Your task to perform on an android device: create a new album in the google photos Image 0: 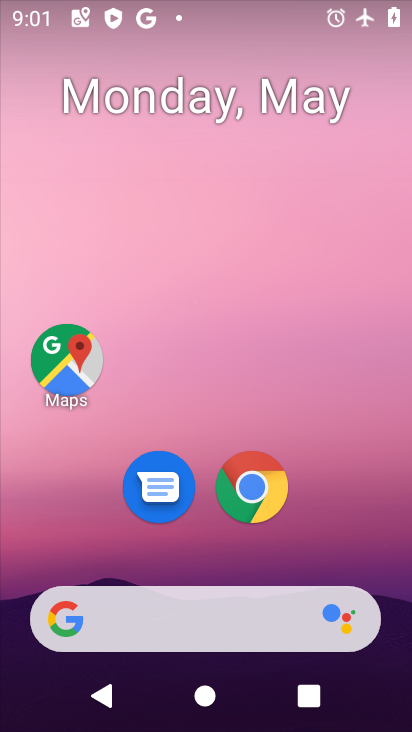
Step 0: drag from (212, 553) to (399, 31)
Your task to perform on an android device: create a new album in the google photos Image 1: 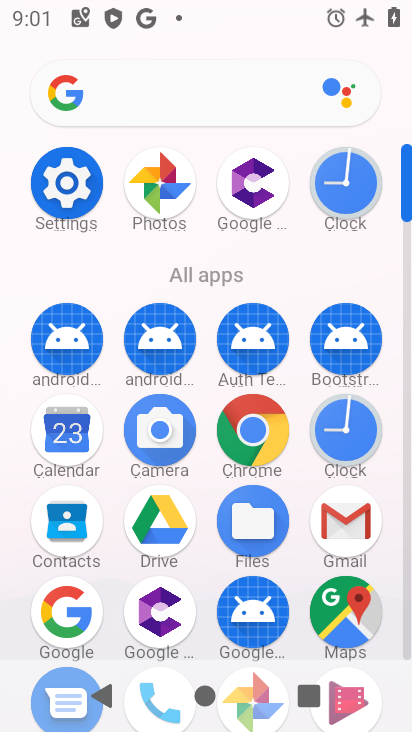
Step 1: click (174, 176)
Your task to perform on an android device: create a new album in the google photos Image 2: 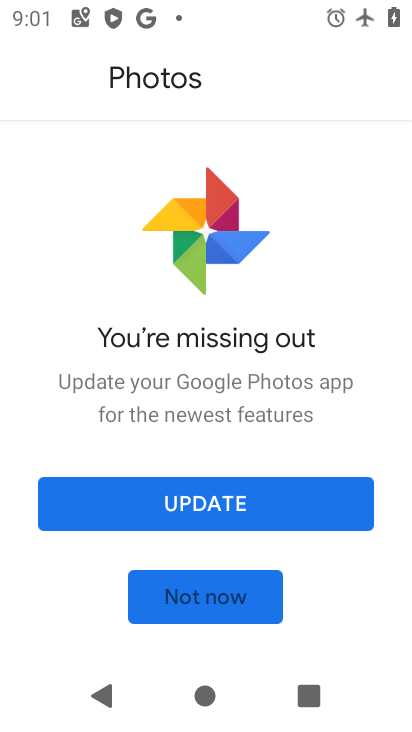
Step 2: click (206, 607)
Your task to perform on an android device: create a new album in the google photos Image 3: 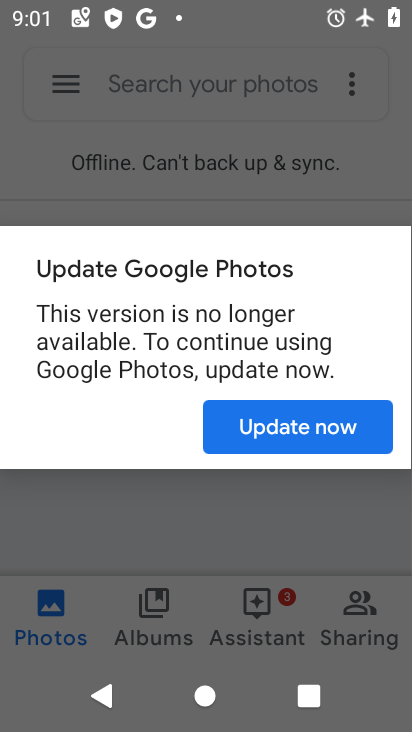
Step 3: click (287, 417)
Your task to perform on an android device: create a new album in the google photos Image 4: 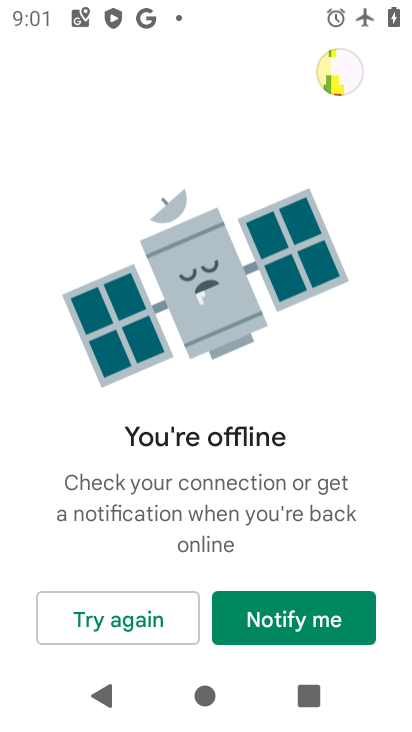
Step 4: drag from (233, 17) to (390, 552)
Your task to perform on an android device: create a new album in the google photos Image 5: 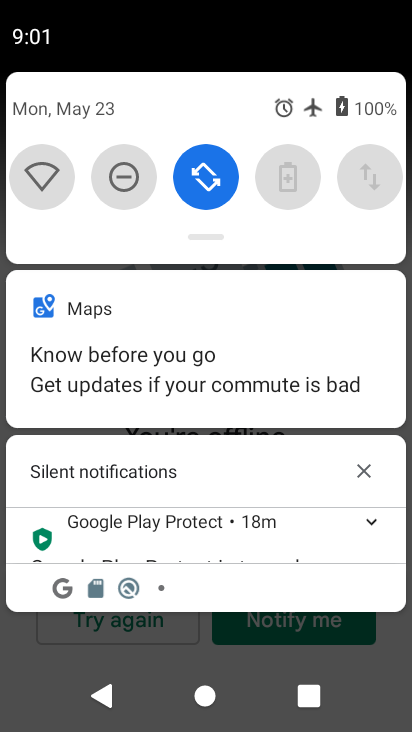
Step 5: drag from (227, 128) to (324, 491)
Your task to perform on an android device: create a new album in the google photos Image 6: 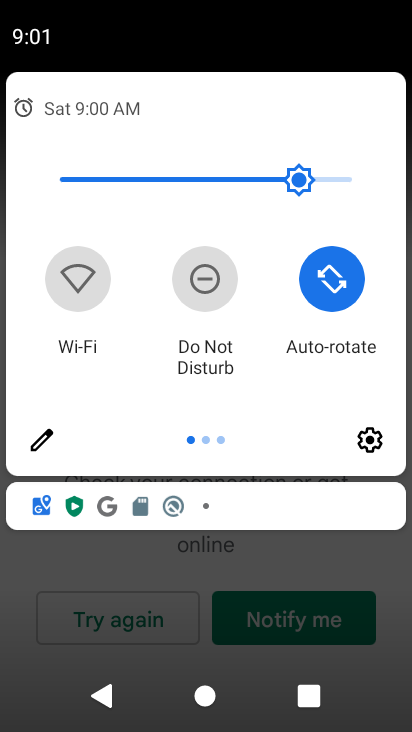
Step 6: drag from (388, 371) to (74, 386)
Your task to perform on an android device: create a new album in the google photos Image 7: 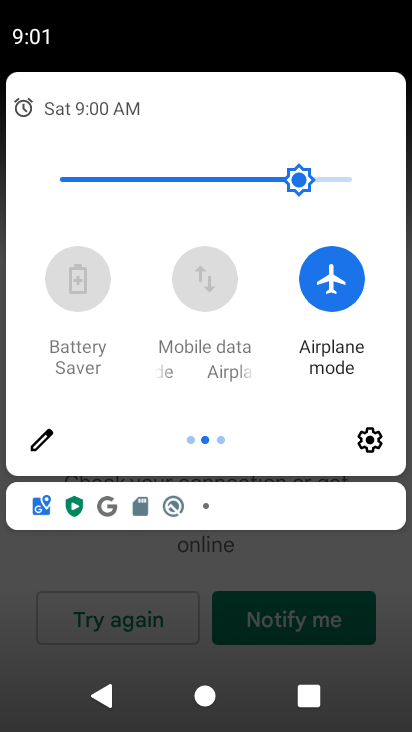
Step 7: click (347, 293)
Your task to perform on an android device: create a new album in the google photos Image 8: 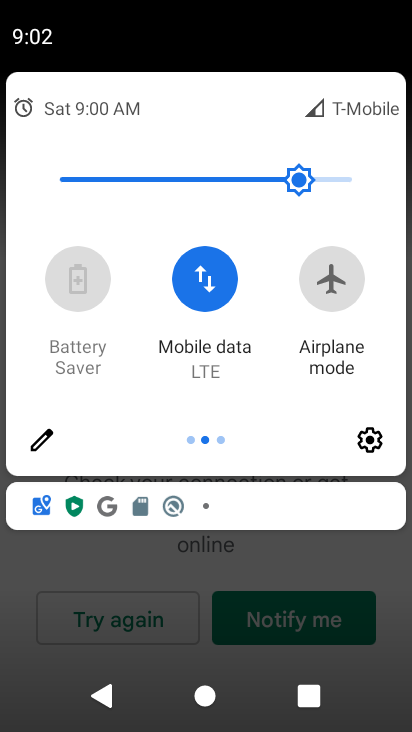
Step 8: click (183, 577)
Your task to perform on an android device: create a new album in the google photos Image 9: 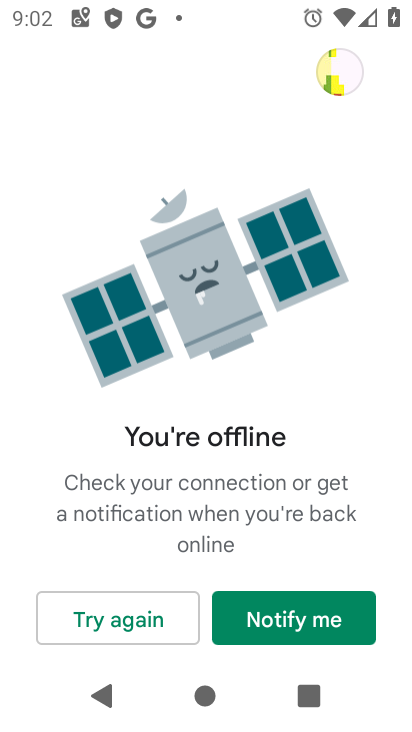
Step 9: task complete